Your task to perform on an android device: toggle wifi Image 0: 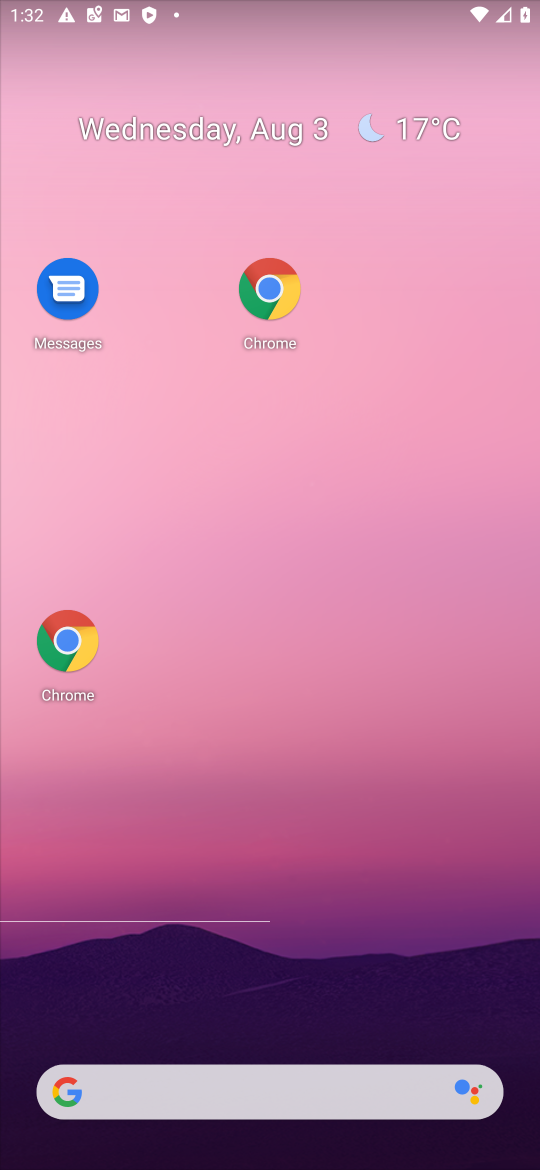
Step 0: drag from (330, 1005) to (194, 194)
Your task to perform on an android device: toggle wifi Image 1: 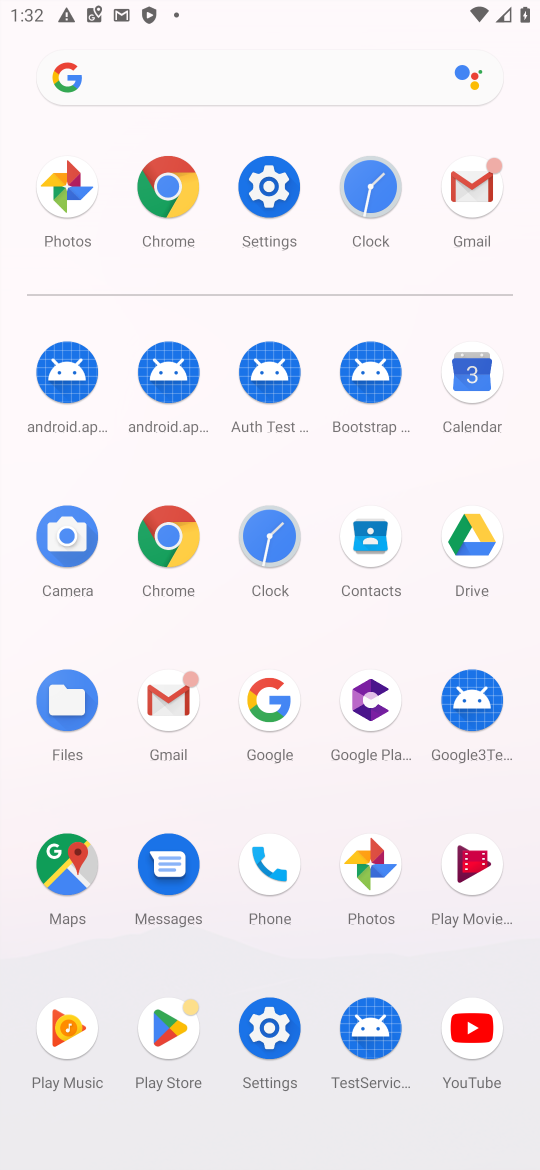
Step 1: click (292, 1027)
Your task to perform on an android device: toggle wifi Image 2: 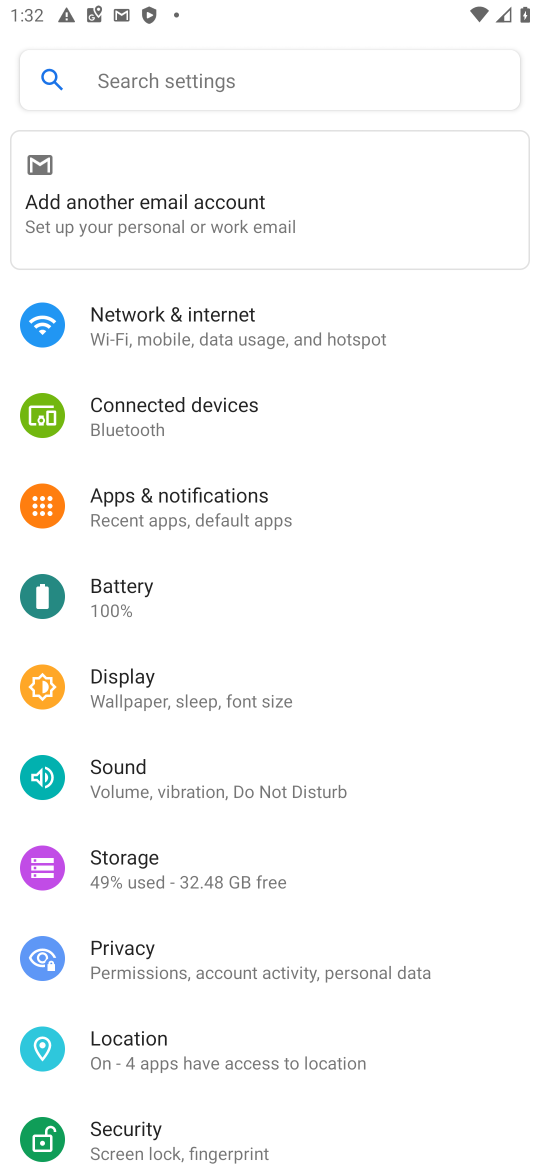
Step 2: click (185, 340)
Your task to perform on an android device: toggle wifi Image 3: 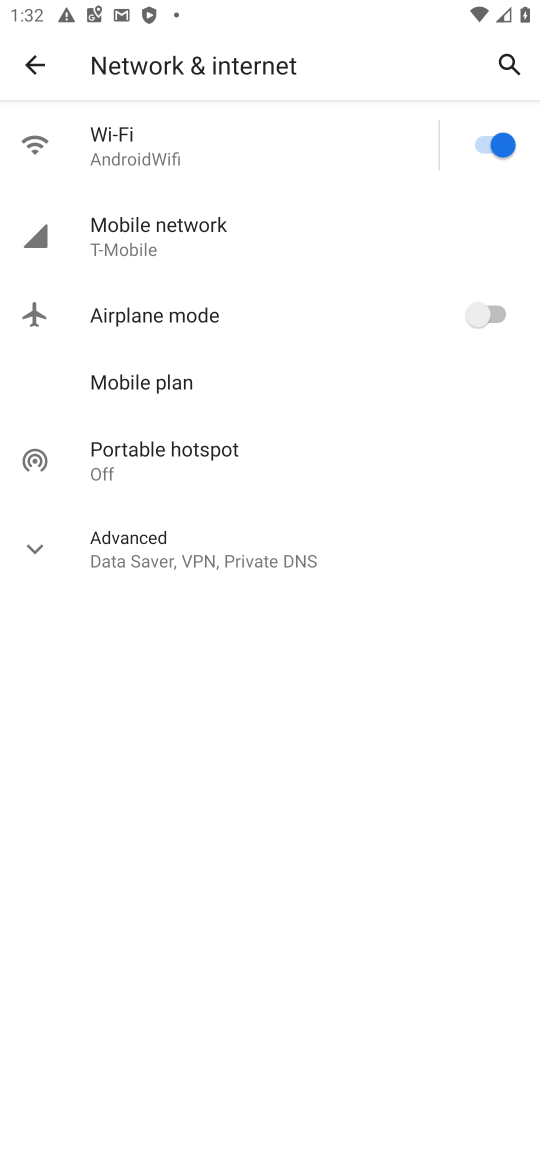
Step 3: click (204, 171)
Your task to perform on an android device: toggle wifi Image 4: 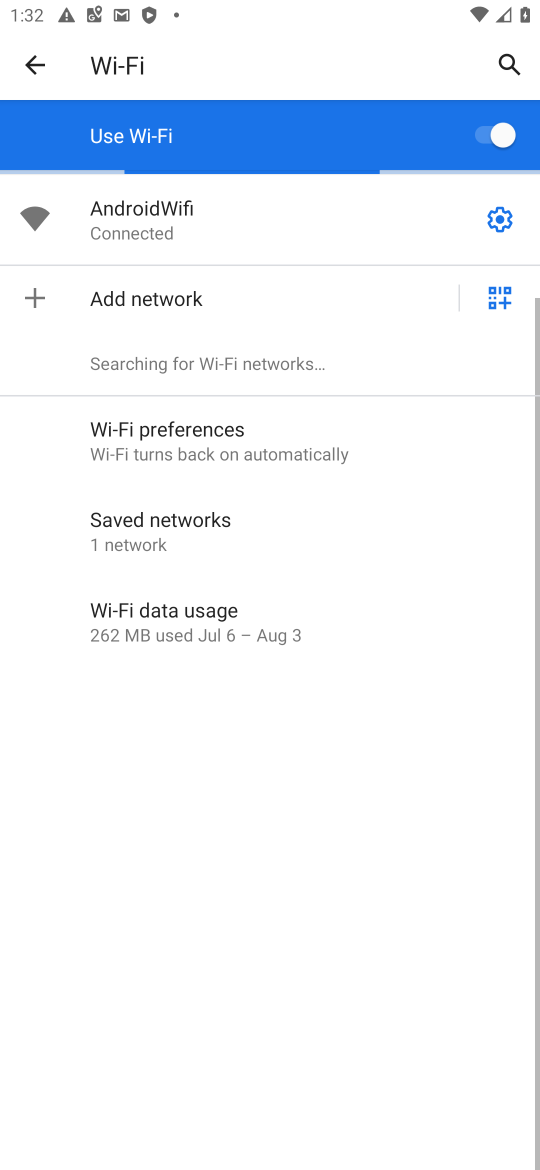
Step 4: task complete